Your task to perform on an android device: Show me recent news Image 0: 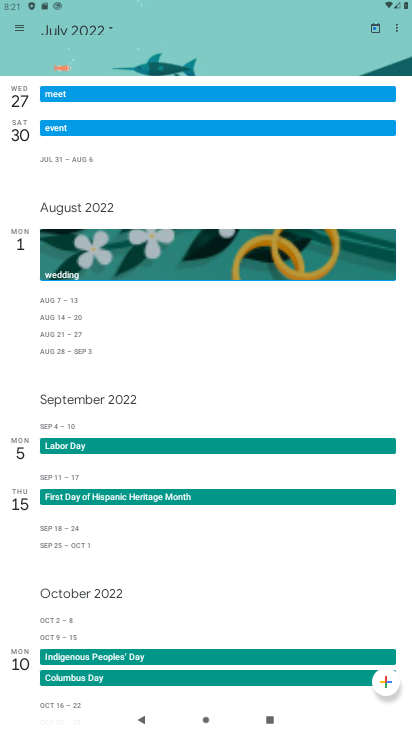
Step 0: press home button
Your task to perform on an android device: Show me recent news Image 1: 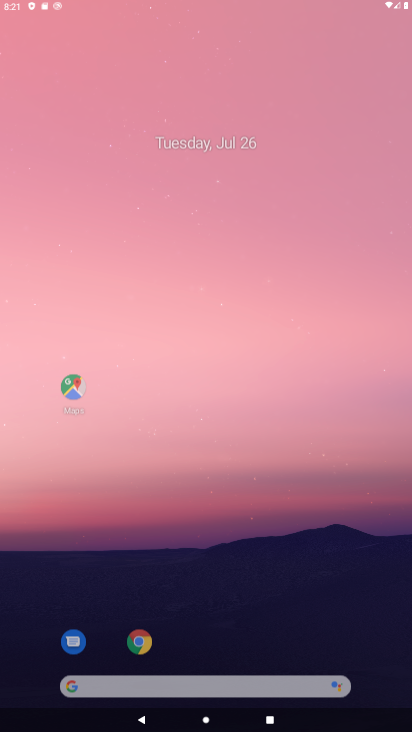
Step 1: drag from (147, 654) to (174, 132)
Your task to perform on an android device: Show me recent news Image 2: 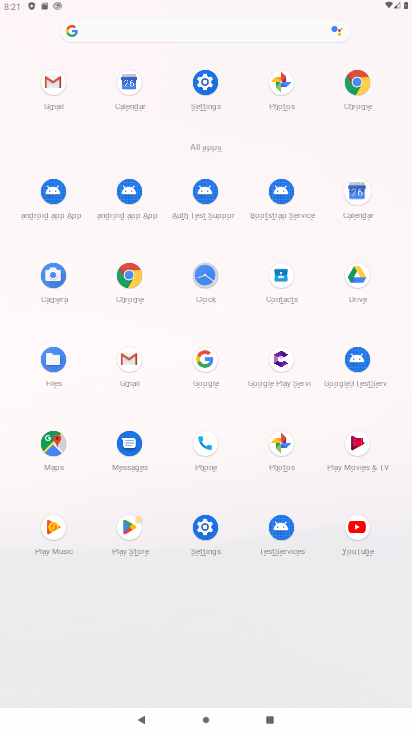
Step 2: click (184, 25)
Your task to perform on an android device: Show me recent news Image 3: 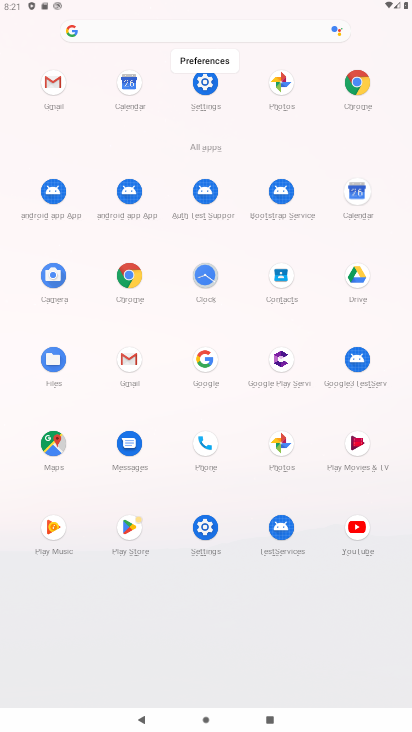
Step 3: click (98, 25)
Your task to perform on an android device: Show me recent news Image 4: 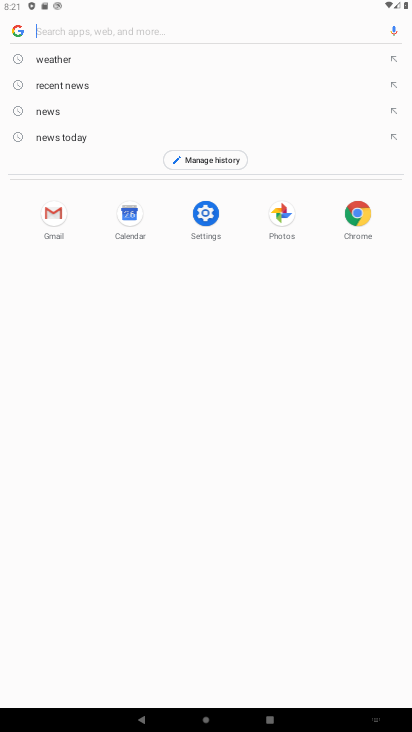
Step 4: click (87, 92)
Your task to perform on an android device: Show me recent news Image 5: 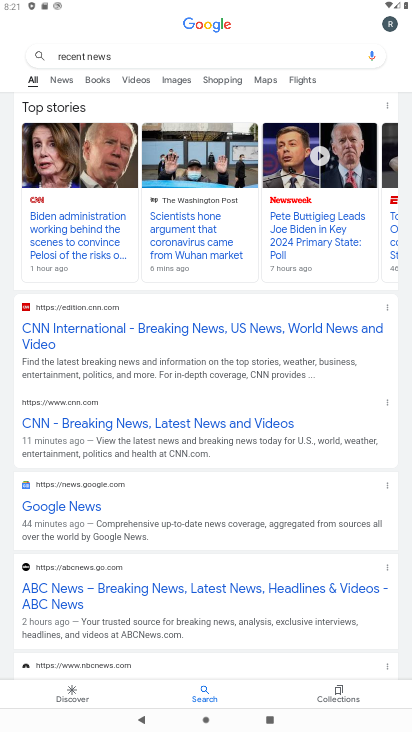
Step 5: task complete